Your task to perform on an android device: show emergency info Image 0: 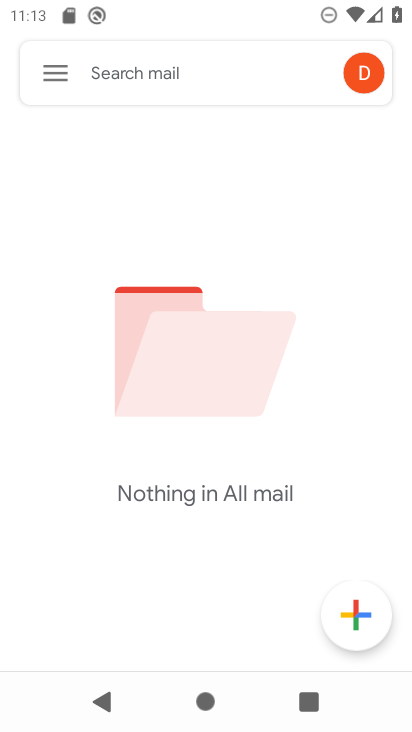
Step 0: press home button
Your task to perform on an android device: show emergency info Image 1: 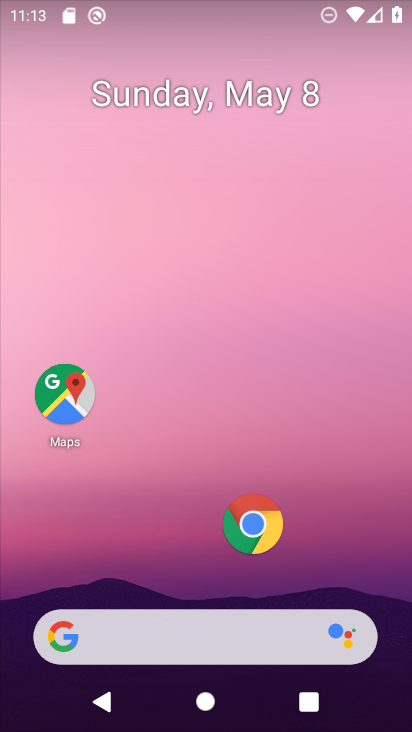
Step 1: drag from (197, 563) to (254, 98)
Your task to perform on an android device: show emergency info Image 2: 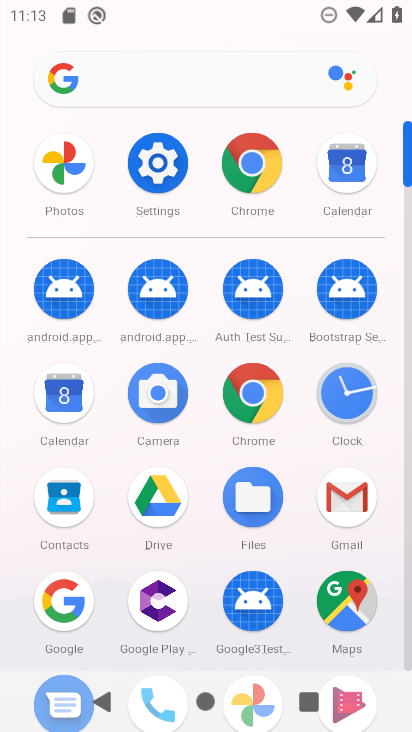
Step 2: click (165, 161)
Your task to perform on an android device: show emergency info Image 3: 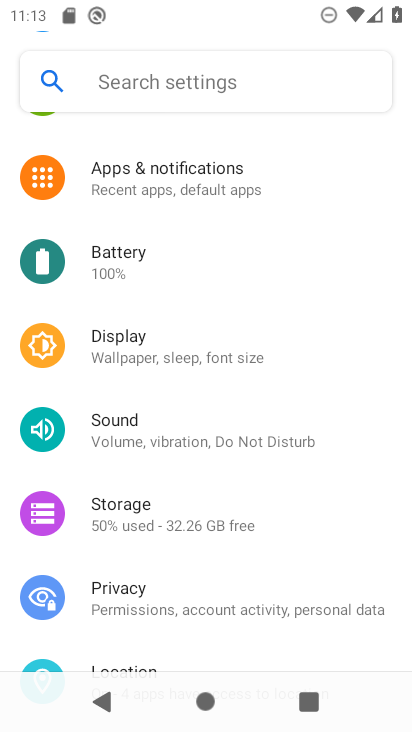
Step 3: drag from (206, 628) to (244, 92)
Your task to perform on an android device: show emergency info Image 4: 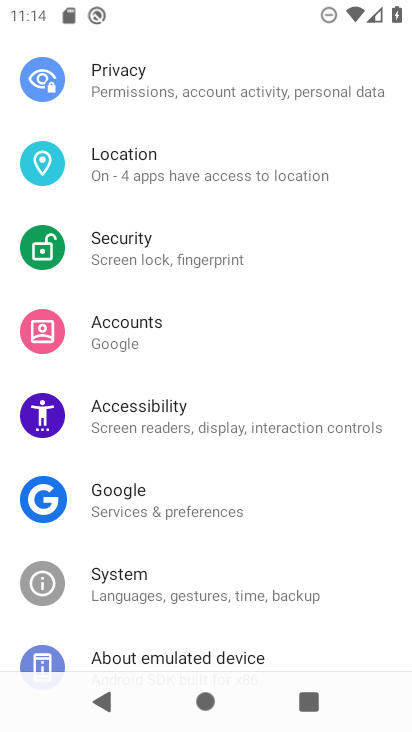
Step 4: click (198, 642)
Your task to perform on an android device: show emergency info Image 5: 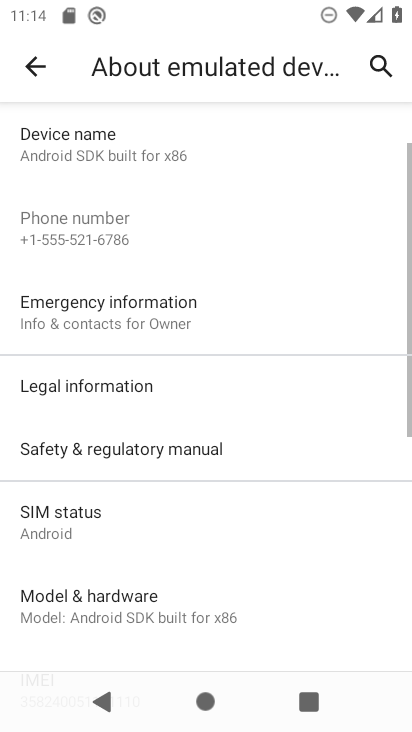
Step 5: click (168, 312)
Your task to perform on an android device: show emergency info Image 6: 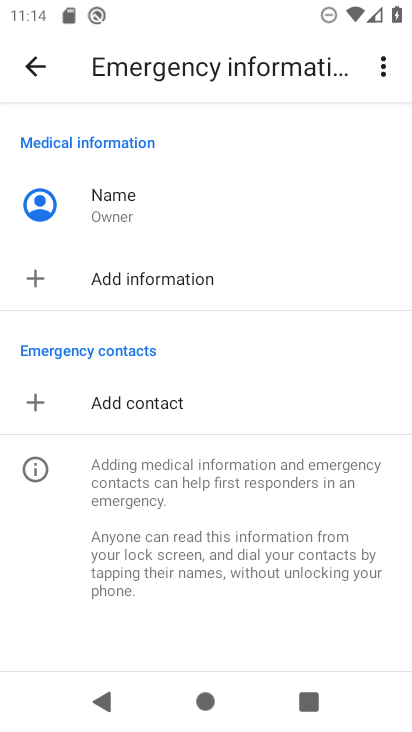
Step 6: task complete